Your task to perform on an android device: Go to sound settings Image 0: 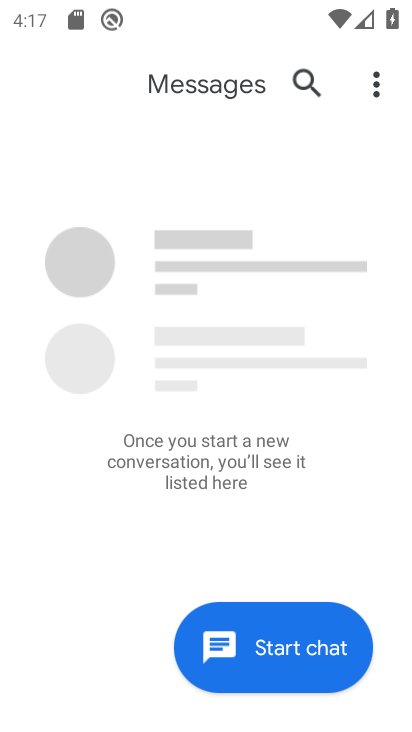
Step 0: press home button
Your task to perform on an android device: Go to sound settings Image 1: 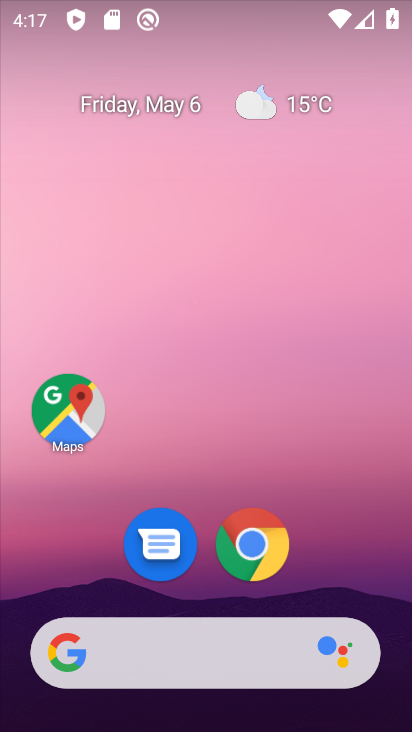
Step 1: drag from (159, 566) to (259, 61)
Your task to perform on an android device: Go to sound settings Image 2: 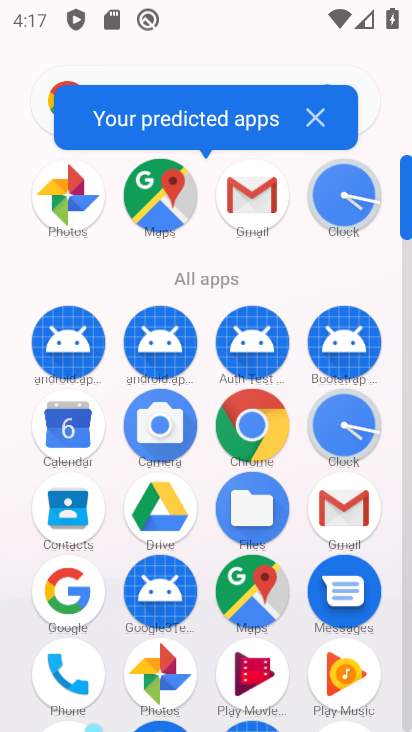
Step 2: drag from (177, 628) to (238, 351)
Your task to perform on an android device: Go to sound settings Image 3: 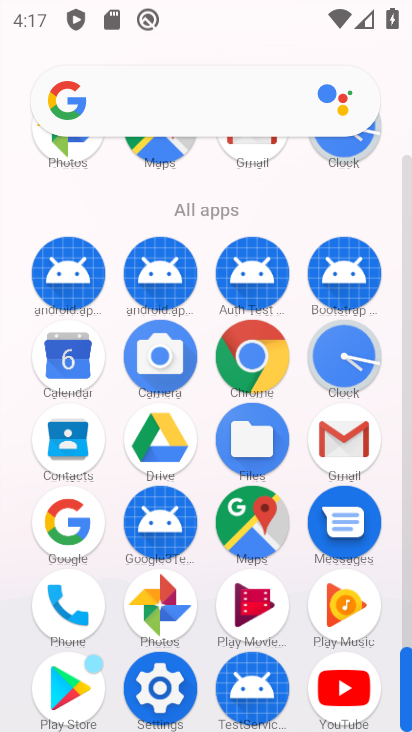
Step 3: click (162, 702)
Your task to perform on an android device: Go to sound settings Image 4: 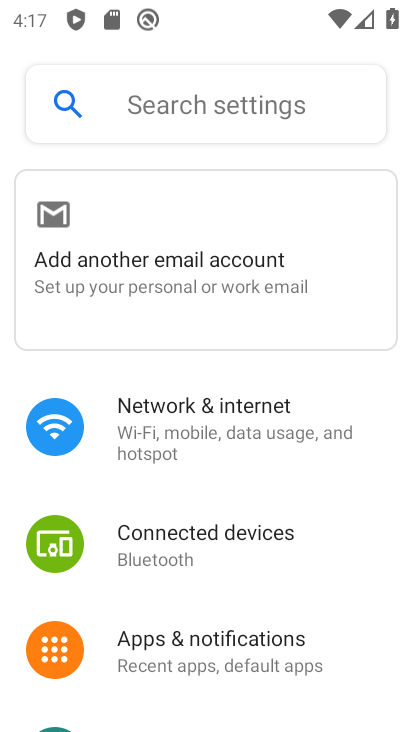
Step 4: drag from (109, 666) to (204, 236)
Your task to perform on an android device: Go to sound settings Image 5: 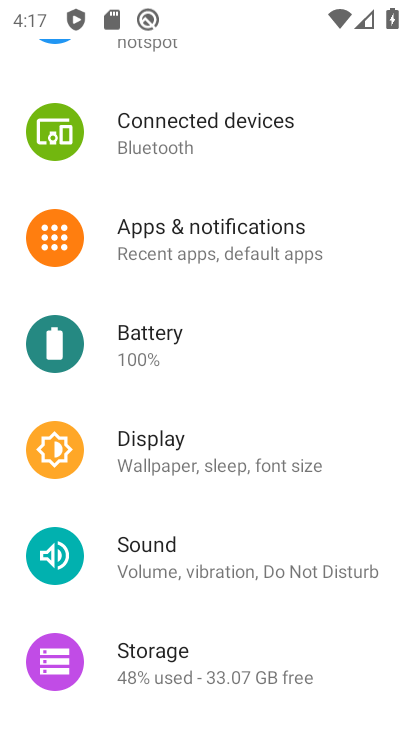
Step 5: click (153, 565)
Your task to perform on an android device: Go to sound settings Image 6: 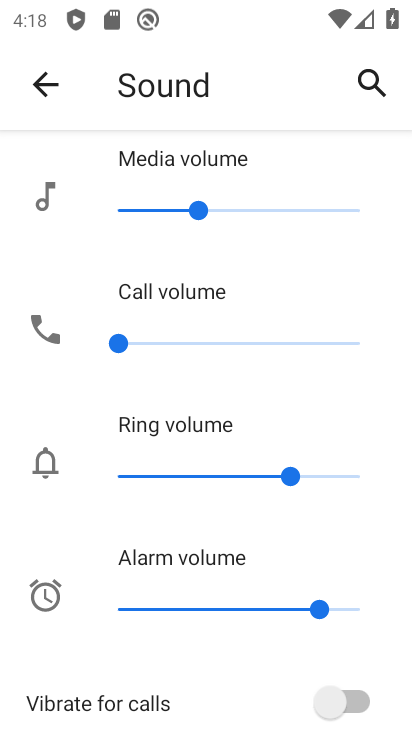
Step 6: task complete